Your task to perform on an android device: Open settings Image 0: 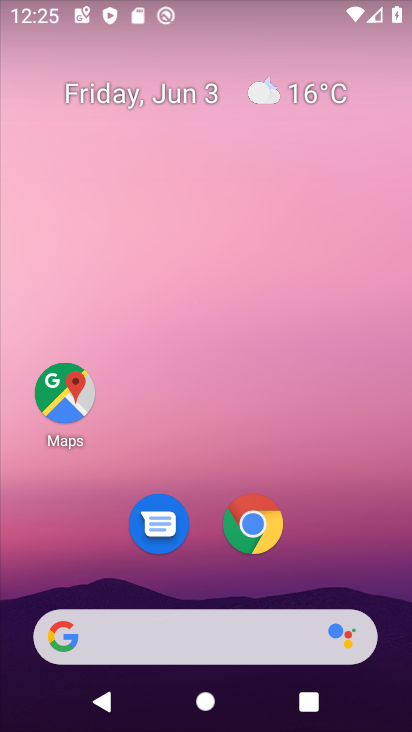
Step 0: drag from (226, 432) to (200, 2)
Your task to perform on an android device: Open settings Image 1: 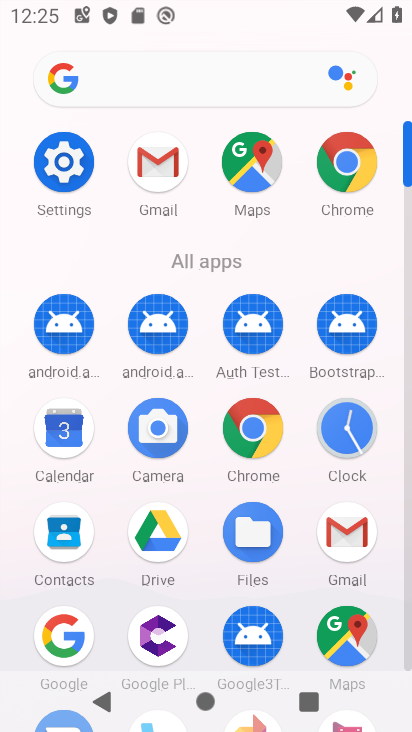
Step 1: click (68, 163)
Your task to perform on an android device: Open settings Image 2: 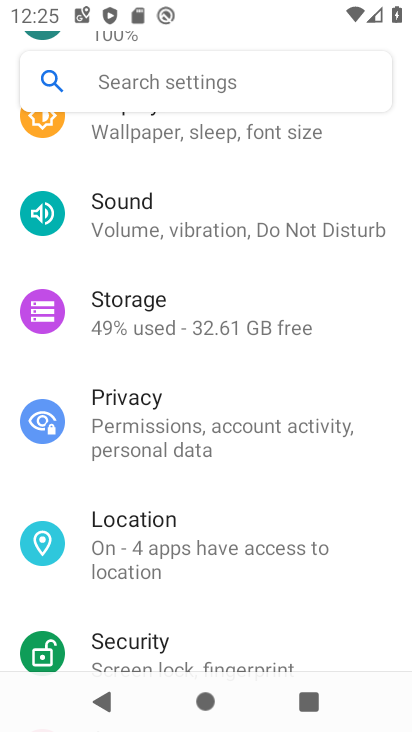
Step 2: task complete